Your task to perform on an android device: Open calendar and show me the first week of next month Image 0: 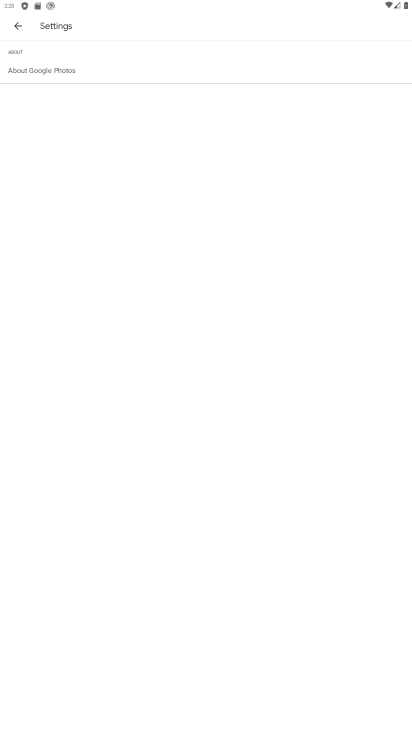
Step 0: press back button
Your task to perform on an android device: Open calendar and show me the first week of next month Image 1: 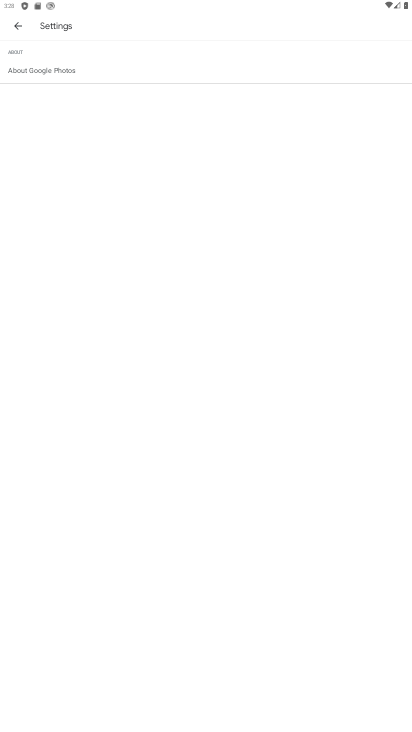
Step 1: press back button
Your task to perform on an android device: Open calendar and show me the first week of next month Image 2: 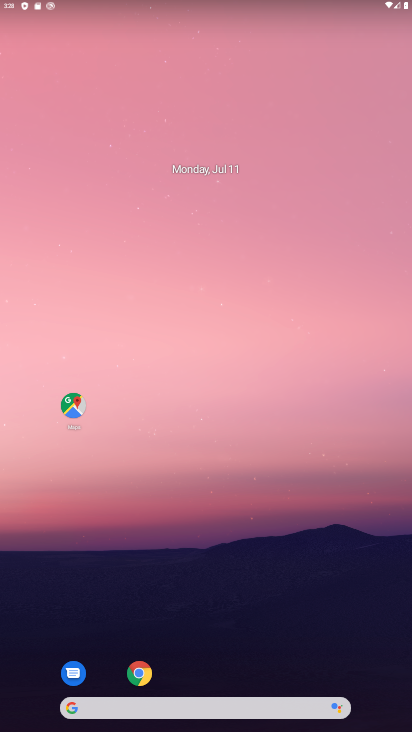
Step 2: press back button
Your task to perform on an android device: Open calendar and show me the first week of next month Image 3: 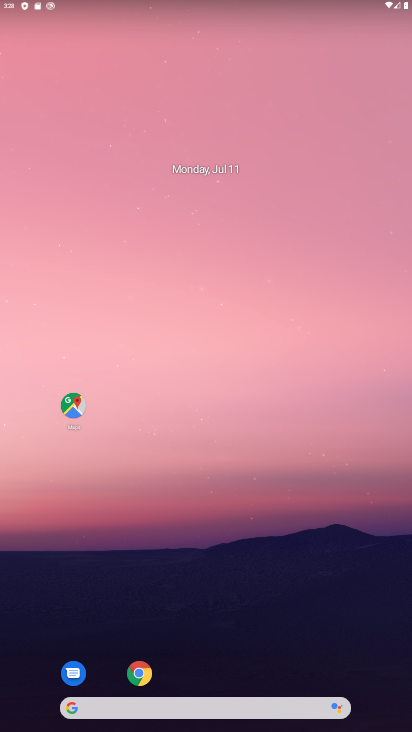
Step 3: press home button
Your task to perform on an android device: Open calendar and show me the first week of next month Image 4: 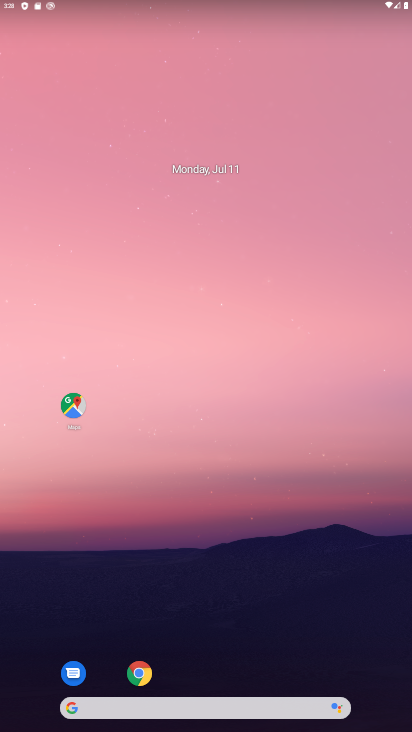
Step 4: press home button
Your task to perform on an android device: Open calendar and show me the first week of next month Image 5: 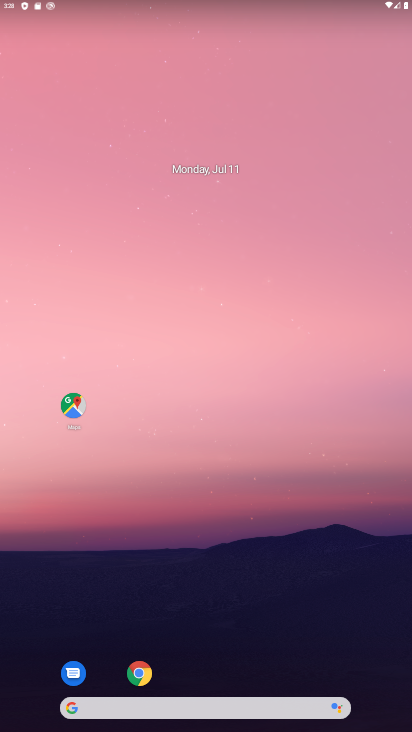
Step 5: press home button
Your task to perform on an android device: Open calendar and show me the first week of next month Image 6: 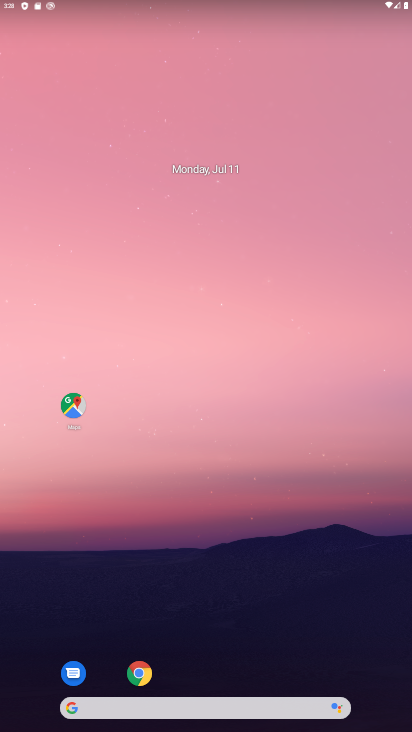
Step 6: drag from (195, 654) to (107, 22)
Your task to perform on an android device: Open calendar and show me the first week of next month Image 7: 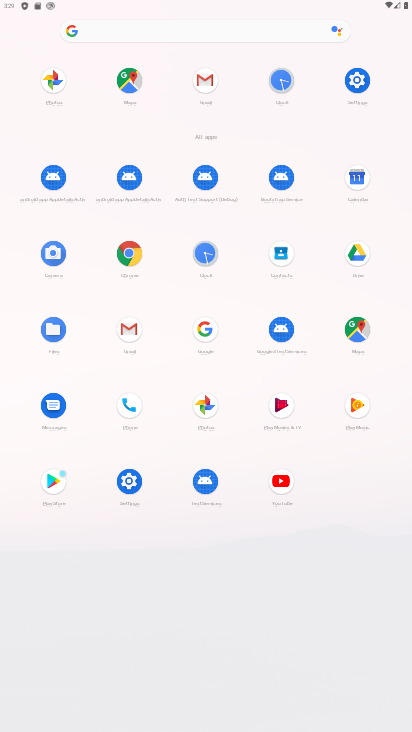
Step 7: drag from (212, 585) to (92, 6)
Your task to perform on an android device: Open calendar and show me the first week of next month Image 8: 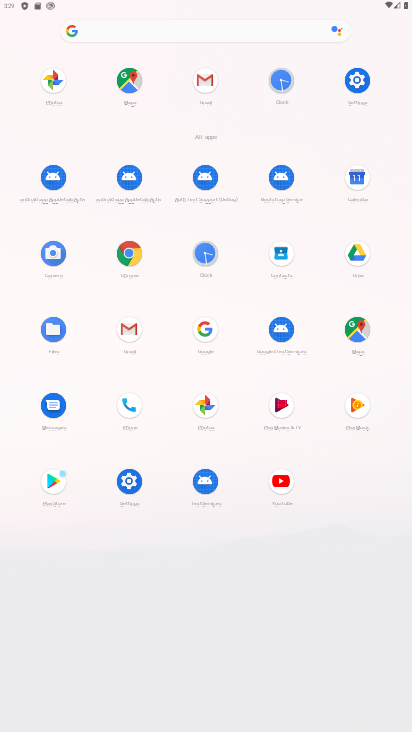
Step 8: click (280, 238)
Your task to perform on an android device: Open calendar and show me the first week of next month Image 9: 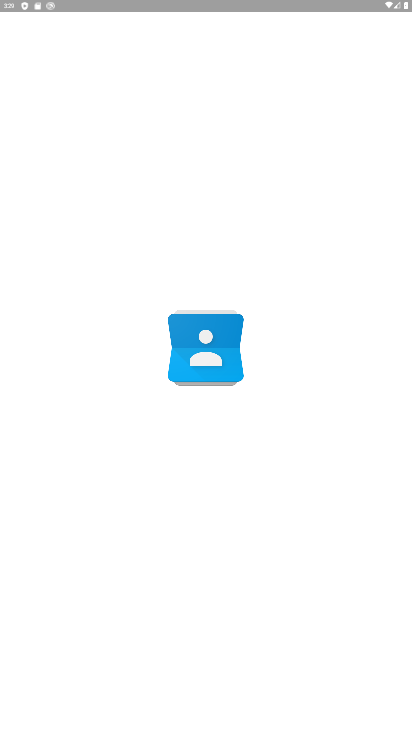
Step 9: click (280, 235)
Your task to perform on an android device: Open calendar and show me the first week of next month Image 10: 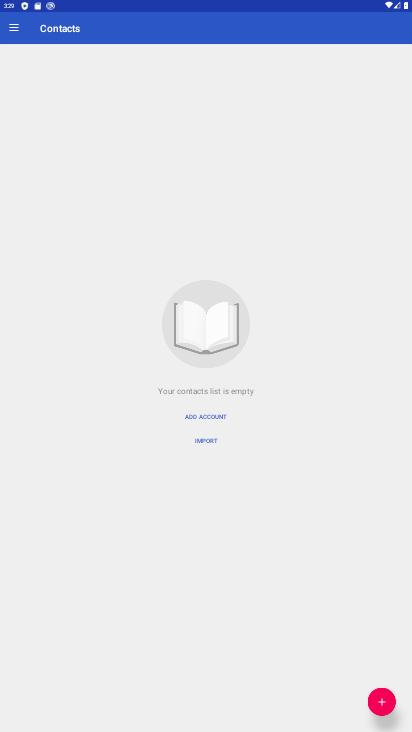
Step 10: click (283, 251)
Your task to perform on an android device: Open calendar and show me the first week of next month Image 11: 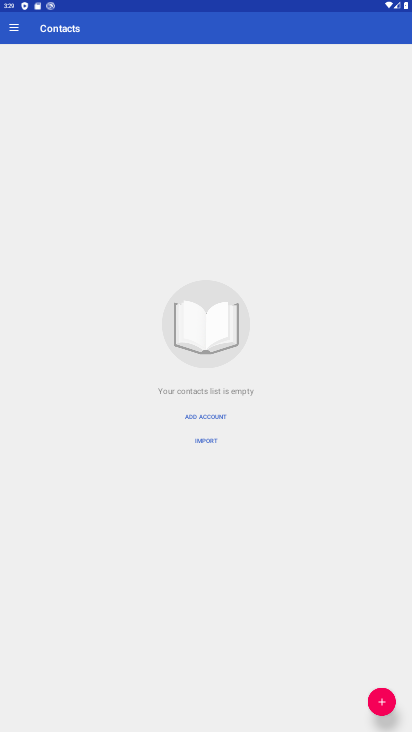
Step 11: click (277, 251)
Your task to perform on an android device: Open calendar and show me the first week of next month Image 12: 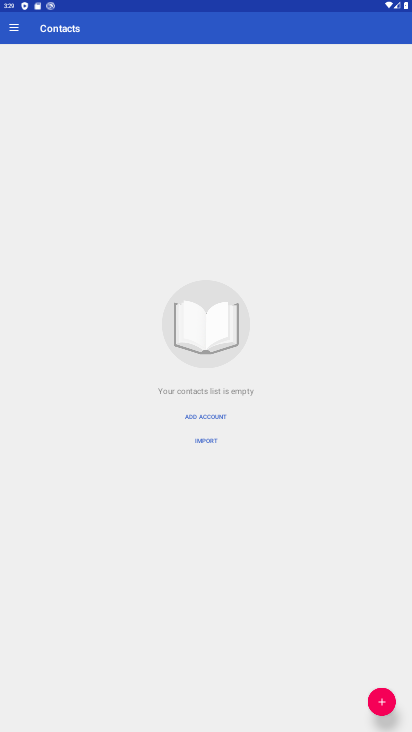
Step 12: task complete